Your task to perform on an android device: open sync settings in chrome Image 0: 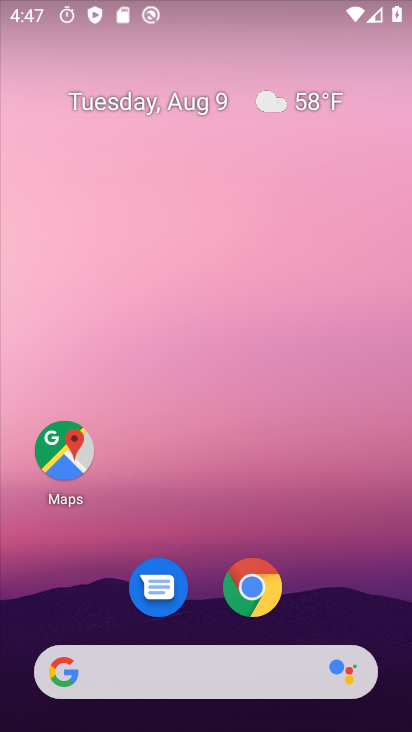
Step 0: click (267, 595)
Your task to perform on an android device: open sync settings in chrome Image 1: 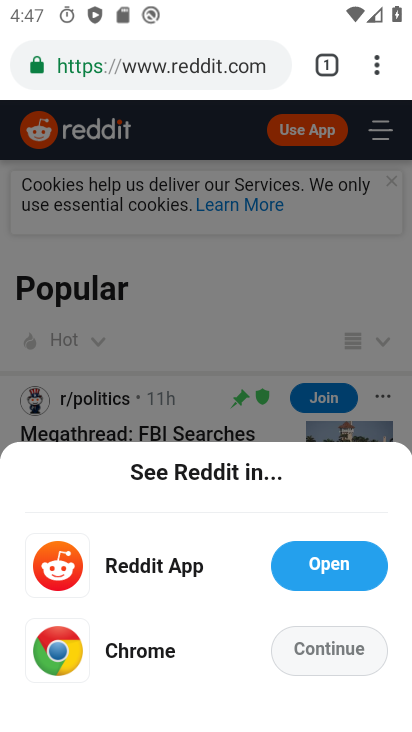
Step 1: drag from (379, 67) to (210, 638)
Your task to perform on an android device: open sync settings in chrome Image 2: 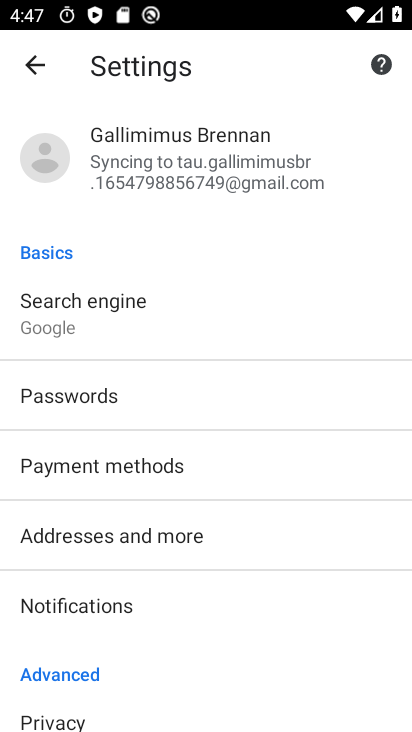
Step 2: click (143, 173)
Your task to perform on an android device: open sync settings in chrome Image 3: 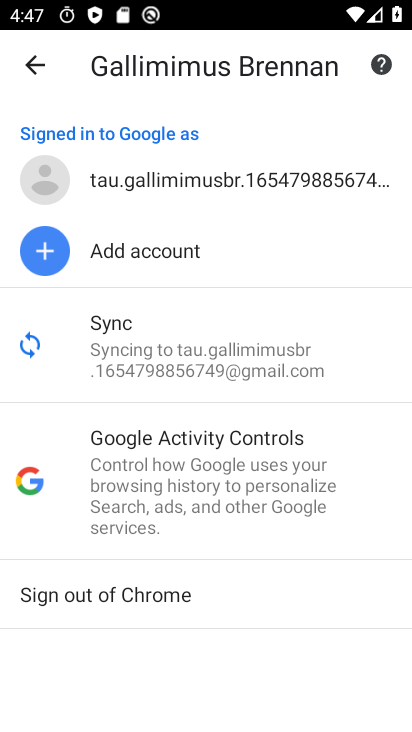
Step 3: click (143, 330)
Your task to perform on an android device: open sync settings in chrome Image 4: 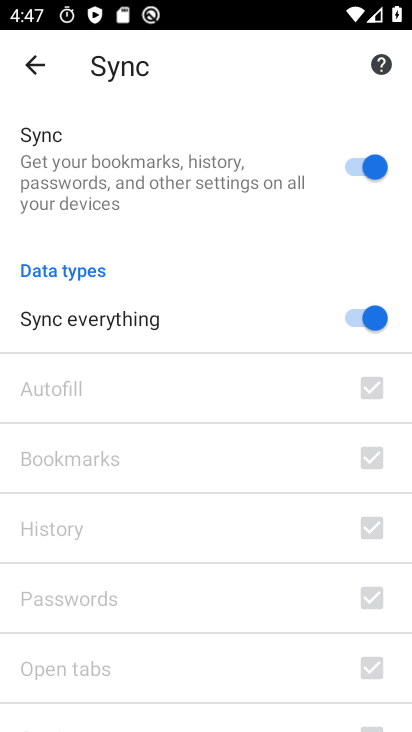
Step 4: task complete